Your task to perform on an android device: set an alarm Image 0: 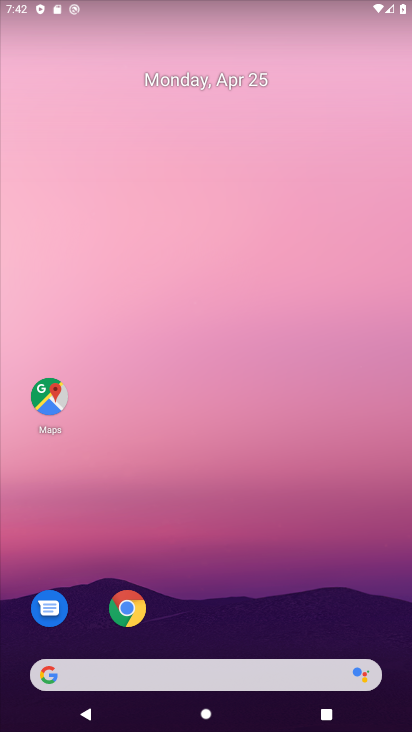
Step 0: drag from (301, 580) to (294, 164)
Your task to perform on an android device: set an alarm Image 1: 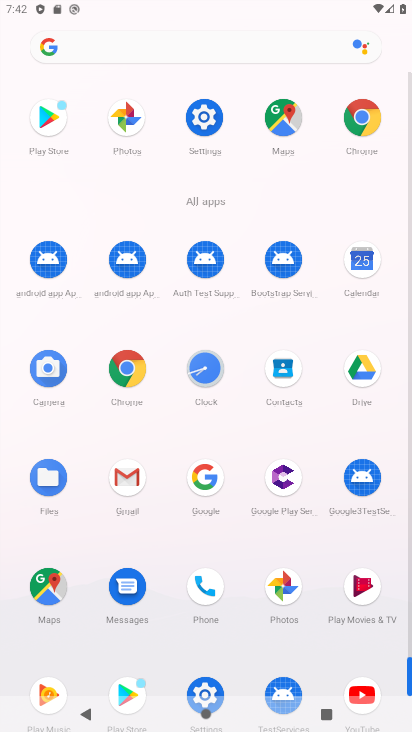
Step 1: click (209, 372)
Your task to perform on an android device: set an alarm Image 2: 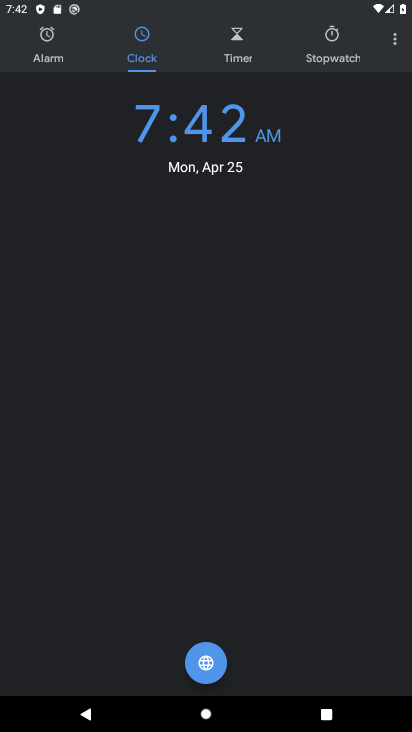
Step 2: click (45, 43)
Your task to perform on an android device: set an alarm Image 3: 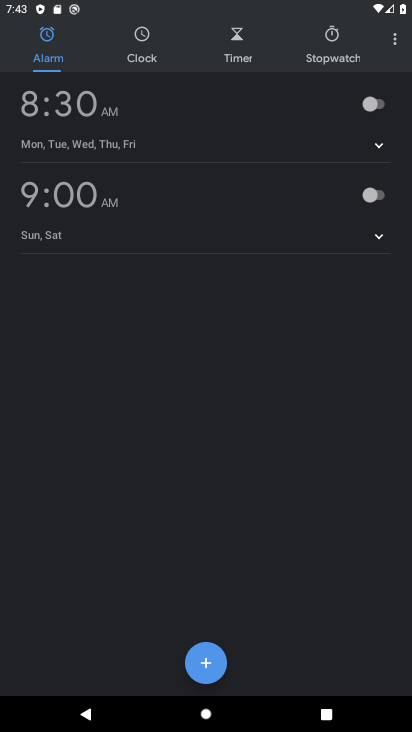
Step 3: click (381, 200)
Your task to perform on an android device: set an alarm Image 4: 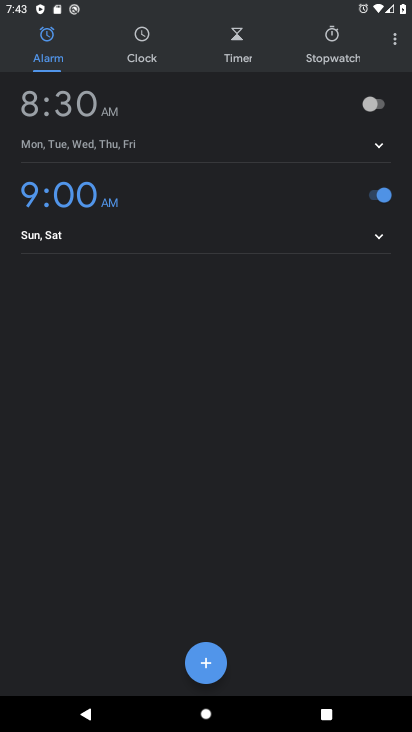
Step 4: task complete